Your task to perform on an android device: open a bookmark in the chrome app Image 0: 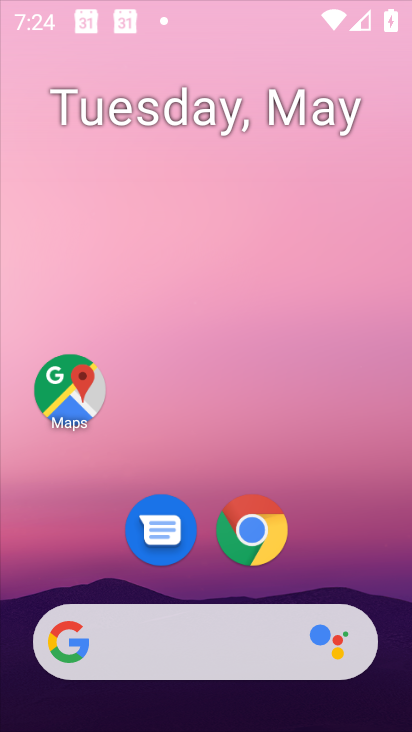
Step 0: click (255, 66)
Your task to perform on an android device: open a bookmark in the chrome app Image 1: 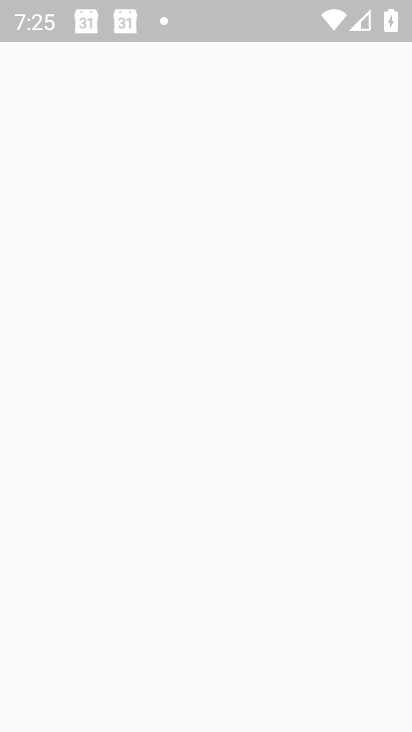
Step 1: press home button
Your task to perform on an android device: open a bookmark in the chrome app Image 2: 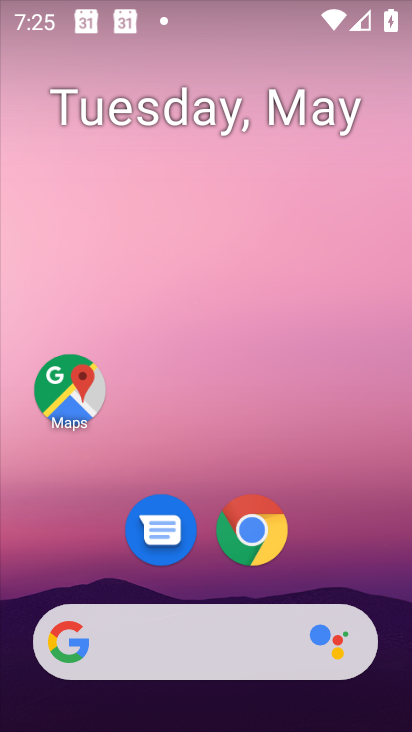
Step 2: click (275, 552)
Your task to perform on an android device: open a bookmark in the chrome app Image 3: 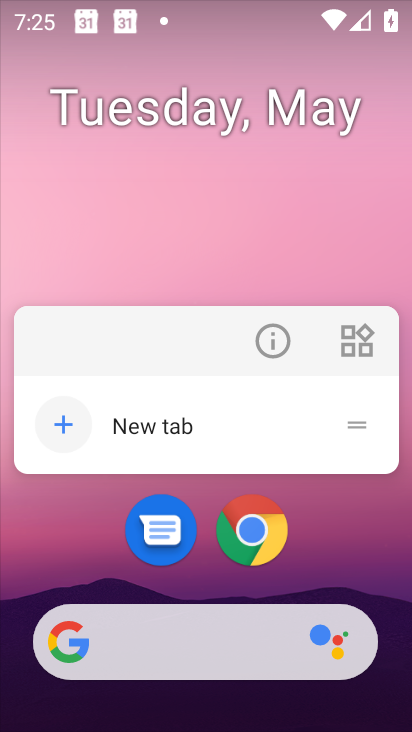
Step 3: click (275, 552)
Your task to perform on an android device: open a bookmark in the chrome app Image 4: 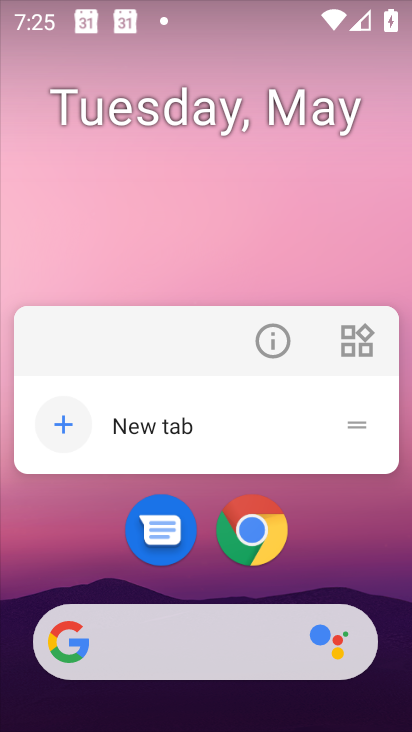
Step 4: click (258, 530)
Your task to perform on an android device: open a bookmark in the chrome app Image 5: 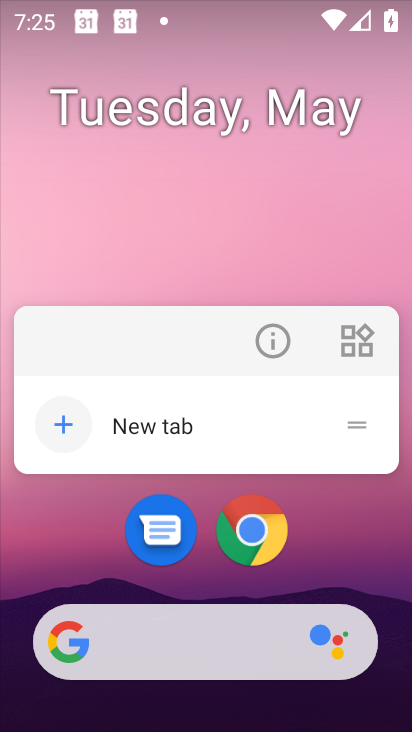
Step 5: click (258, 530)
Your task to perform on an android device: open a bookmark in the chrome app Image 6: 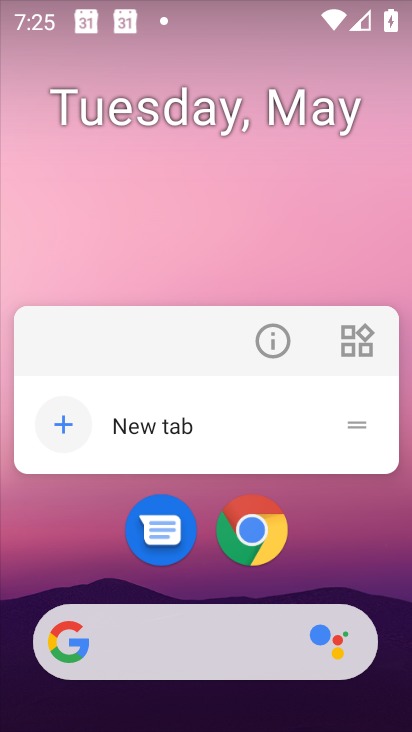
Step 6: click (102, 423)
Your task to perform on an android device: open a bookmark in the chrome app Image 7: 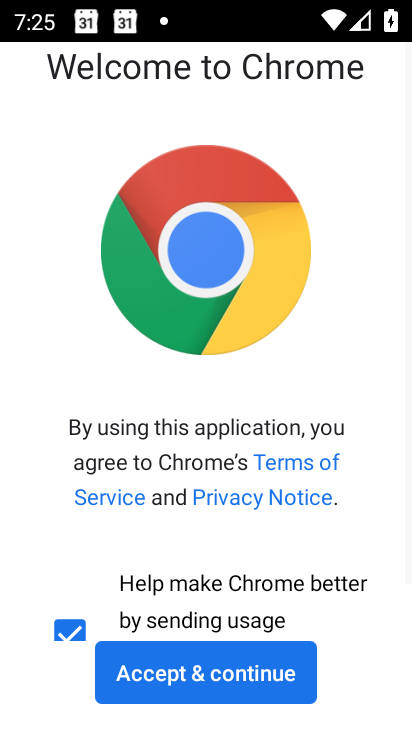
Step 7: click (227, 683)
Your task to perform on an android device: open a bookmark in the chrome app Image 8: 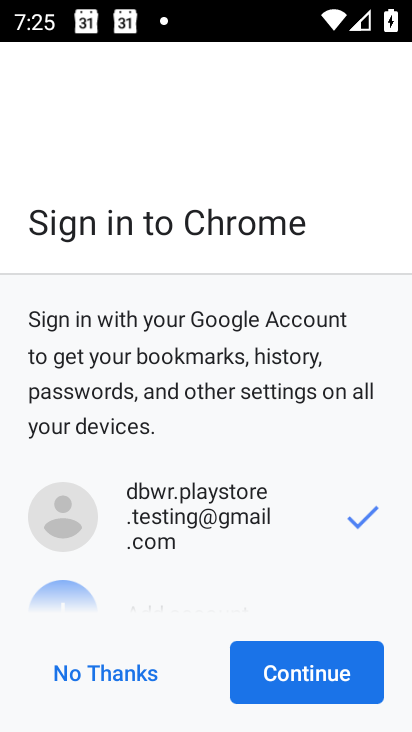
Step 8: click (268, 675)
Your task to perform on an android device: open a bookmark in the chrome app Image 9: 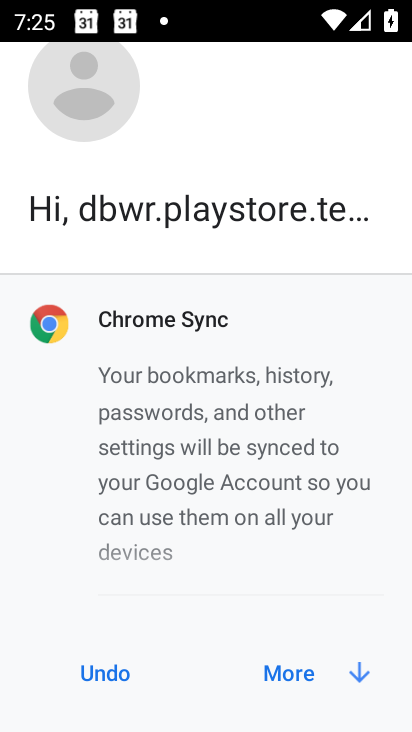
Step 9: click (307, 684)
Your task to perform on an android device: open a bookmark in the chrome app Image 10: 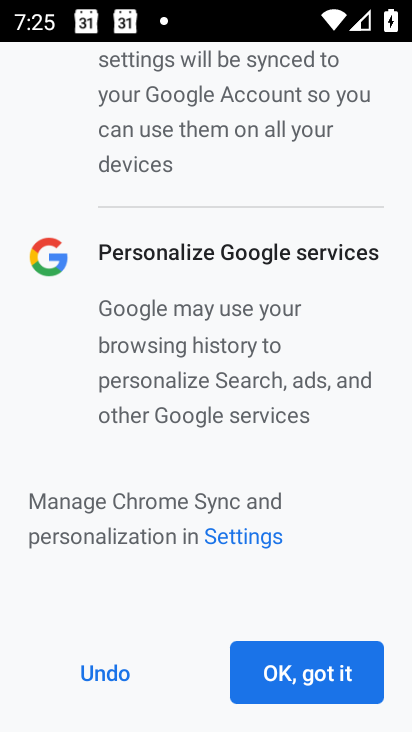
Step 10: click (308, 675)
Your task to perform on an android device: open a bookmark in the chrome app Image 11: 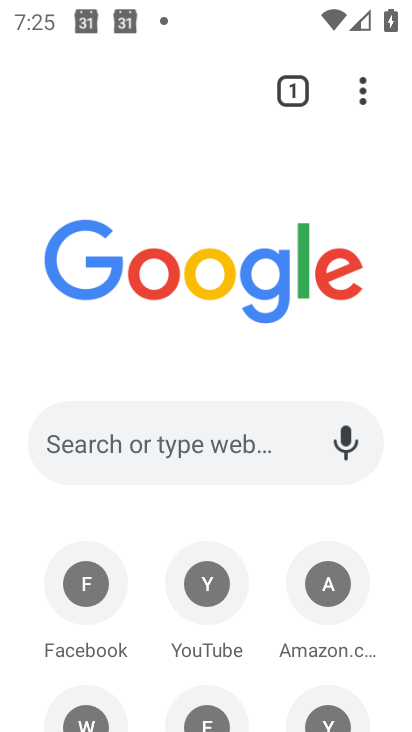
Step 11: click (366, 101)
Your task to perform on an android device: open a bookmark in the chrome app Image 12: 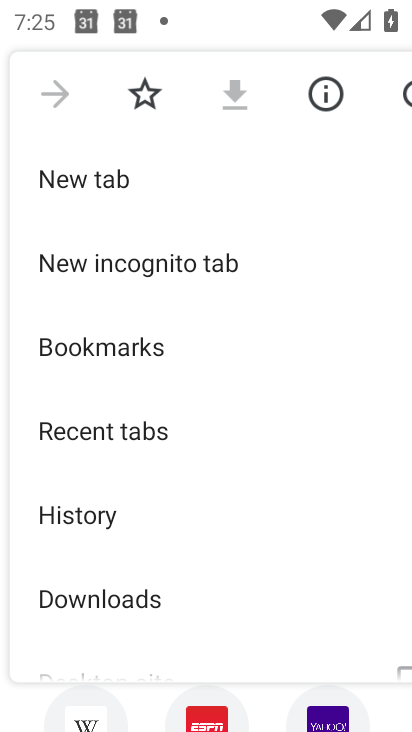
Step 12: click (140, 360)
Your task to perform on an android device: open a bookmark in the chrome app Image 13: 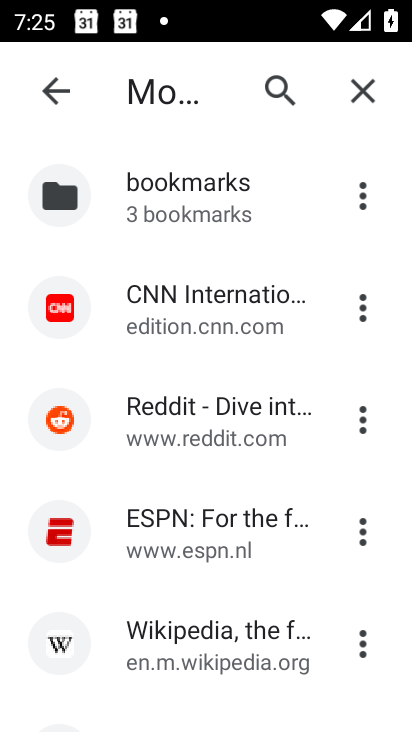
Step 13: click (219, 315)
Your task to perform on an android device: open a bookmark in the chrome app Image 14: 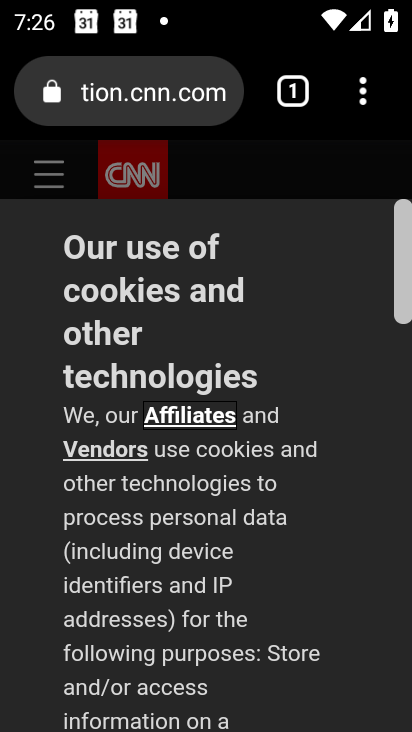
Step 14: task complete